Your task to perform on an android device: Is it going to rain tomorrow? Image 0: 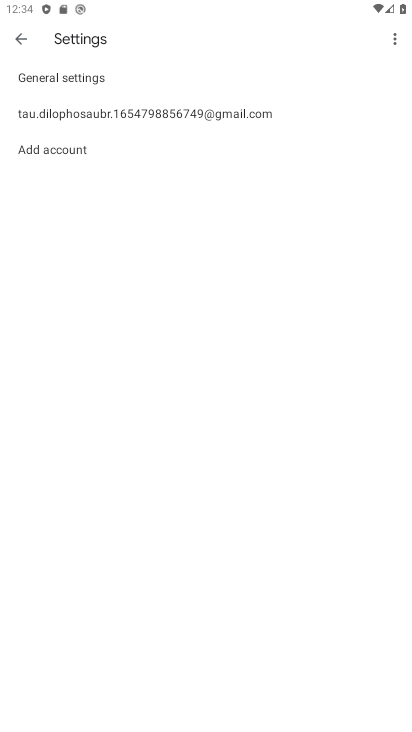
Step 0: press home button
Your task to perform on an android device: Is it going to rain tomorrow? Image 1: 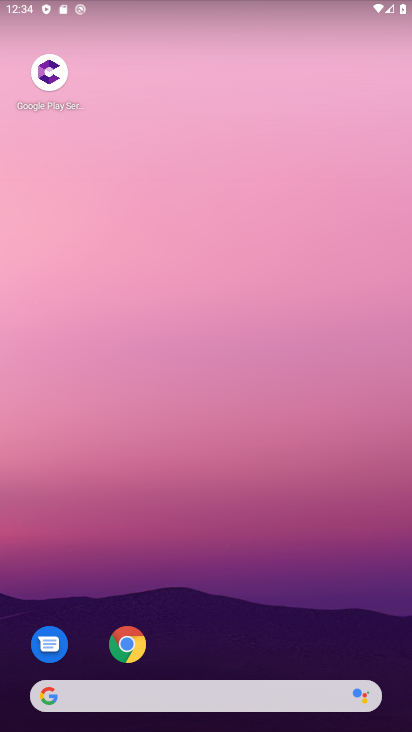
Step 1: click (98, 697)
Your task to perform on an android device: Is it going to rain tomorrow? Image 2: 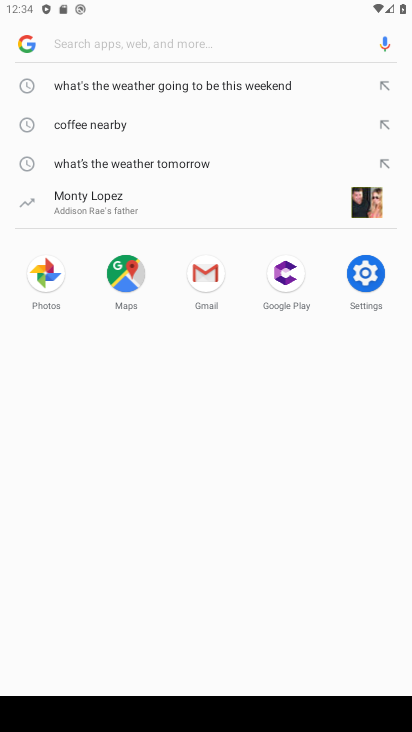
Step 2: type "Is it going to rain tomorrow?"
Your task to perform on an android device: Is it going to rain tomorrow? Image 3: 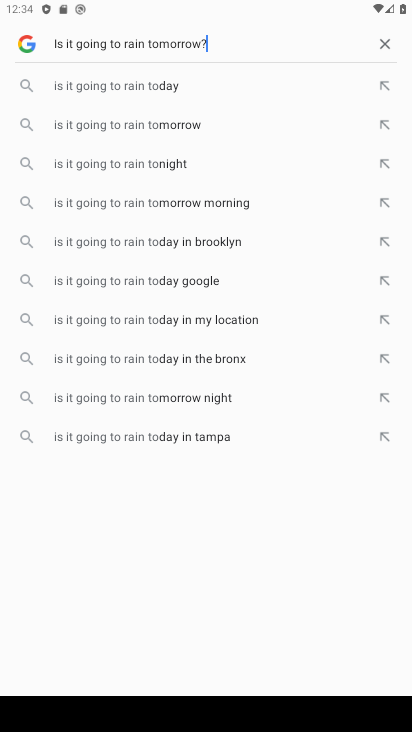
Step 3: type ""
Your task to perform on an android device: Is it going to rain tomorrow? Image 4: 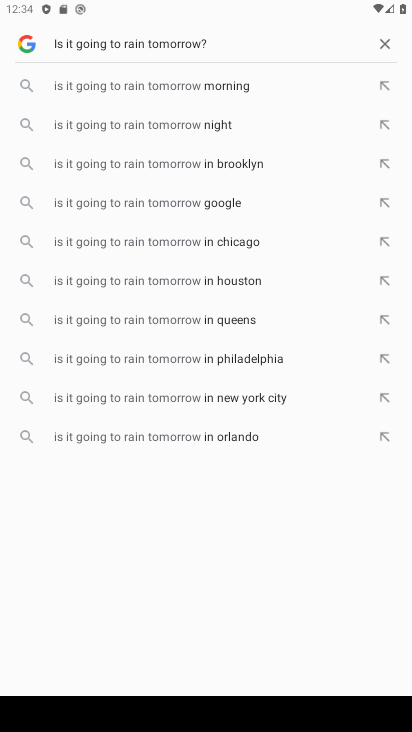
Step 4: click (235, 45)
Your task to perform on an android device: Is it going to rain tomorrow? Image 5: 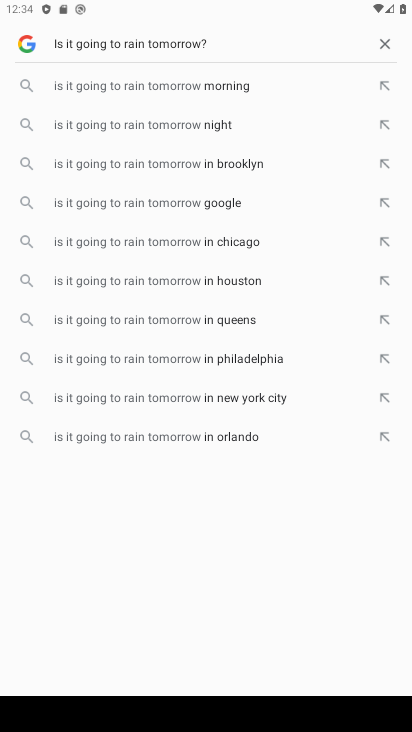
Step 5: click (234, 42)
Your task to perform on an android device: Is it going to rain tomorrow? Image 6: 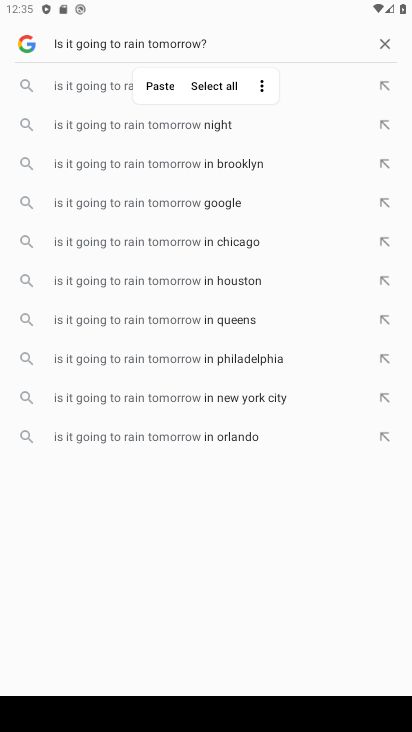
Step 6: type " "
Your task to perform on an android device: Is it going to rain tomorrow? Image 7: 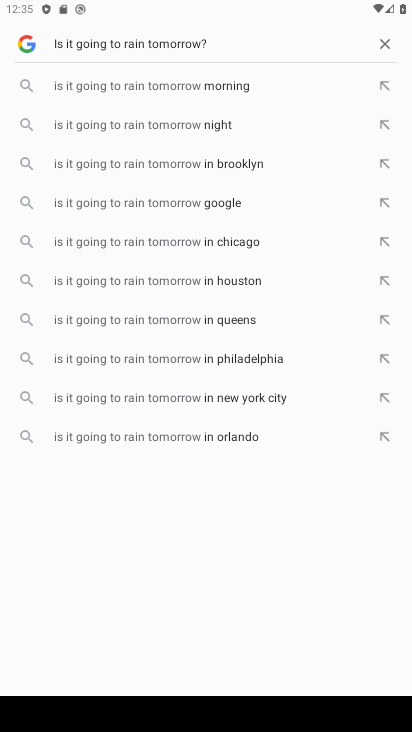
Step 7: type "   "
Your task to perform on an android device: Is it going to rain tomorrow? Image 8: 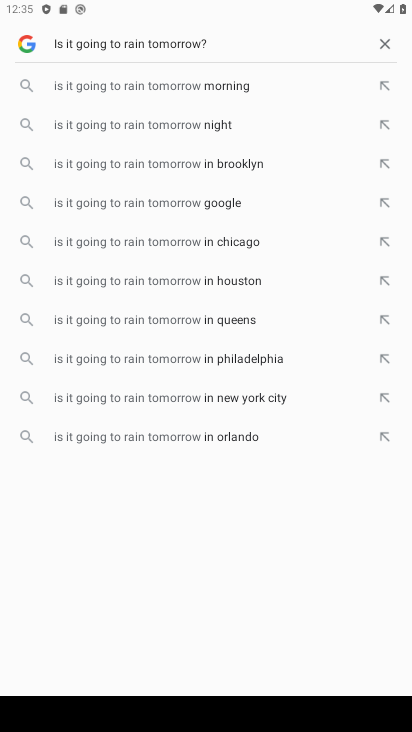
Step 8: click (221, 52)
Your task to perform on an android device: Is it going to rain tomorrow? Image 9: 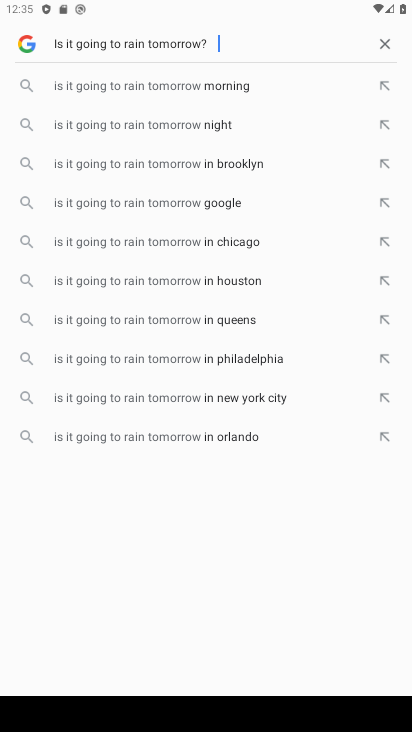
Step 9: click (229, 45)
Your task to perform on an android device: Is it going to rain tomorrow? Image 10: 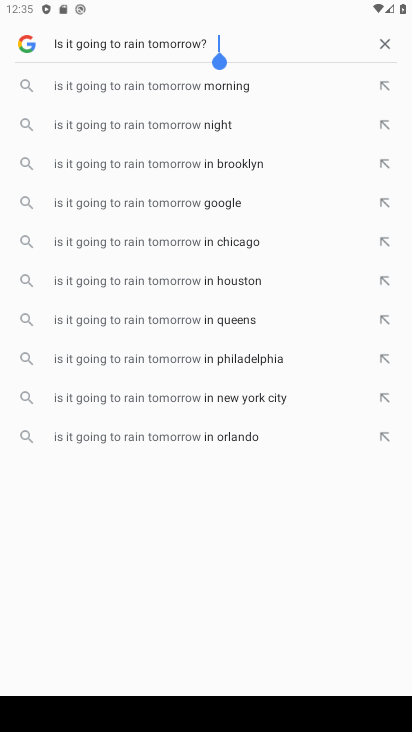
Step 10: type ""
Your task to perform on an android device: Is it going to rain tomorrow? Image 11: 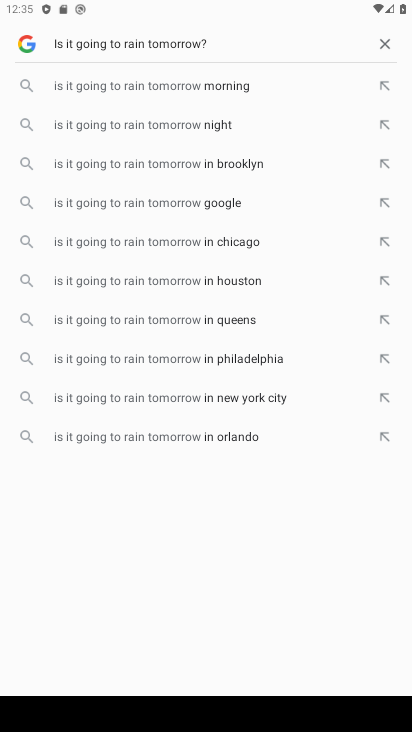
Step 11: type ""
Your task to perform on an android device: Is it going to rain tomorrow? Image 12: 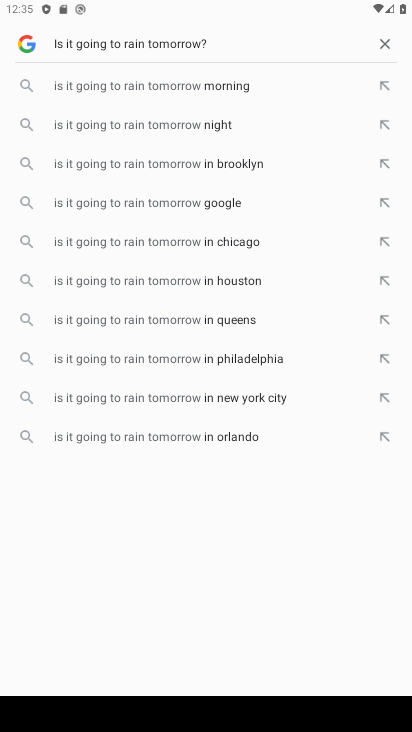
Step 12: type ""
Your task to perform on an android device: Is it going to rain tomorrow? Image 13: 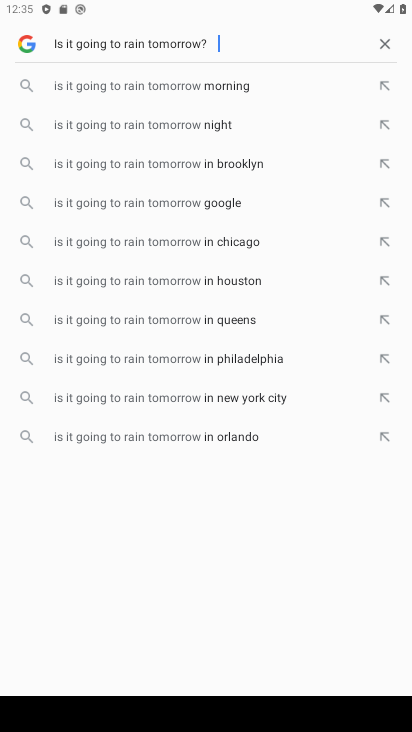
Step 13: type ""
Your task to perform on an android device: Is it going to rain tomorrow? Image 14: 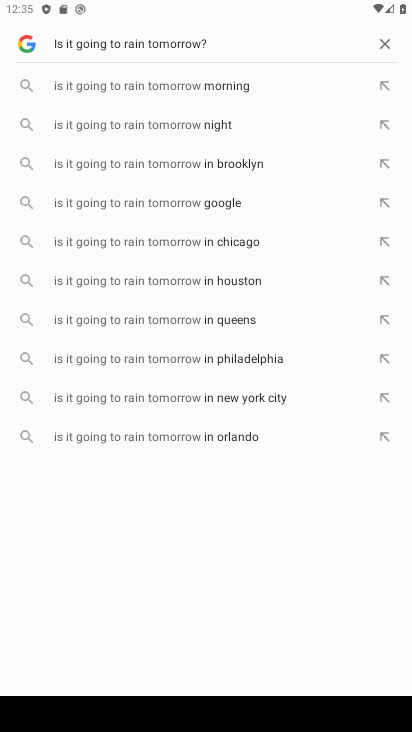
Step 14: type ""
Your task to perform on an android device: Is it going to rain tomorrow? Image 15: 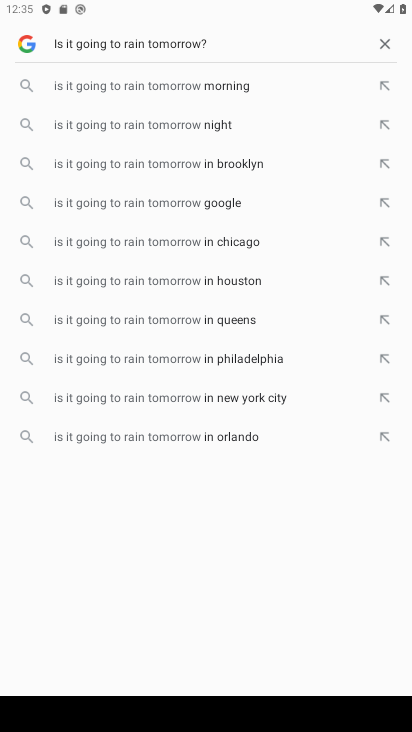
Step 15: task complete